Your task to perform on an android device: Open Google Chrome and click the shortcut for Amazon.com Image 0: 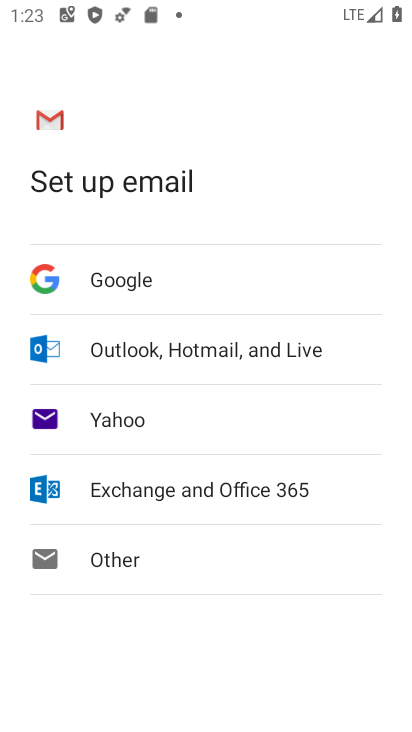
Step 0: press home button
Your task to perform on an android device: Open Google Chrome and click the shortcut for Amazon.com Image 1: 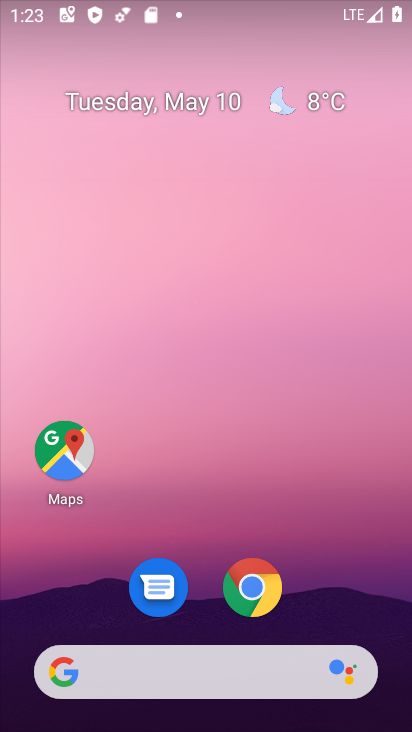
Step 1: click (248, 572)
Your task to perform on an android device: Open Google Chrome and click the shortcut for Amazon.com Image 2: 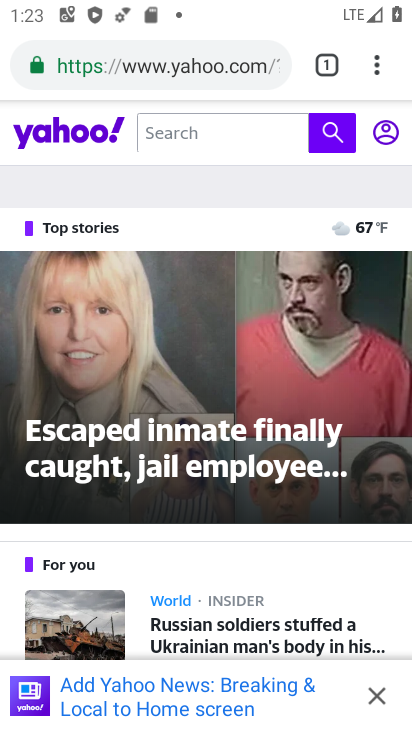
Step 2: click (327, 63)
Your task to perform on an android device: Open Google Chrome and click the shortcut for Amazon.com Image 3: 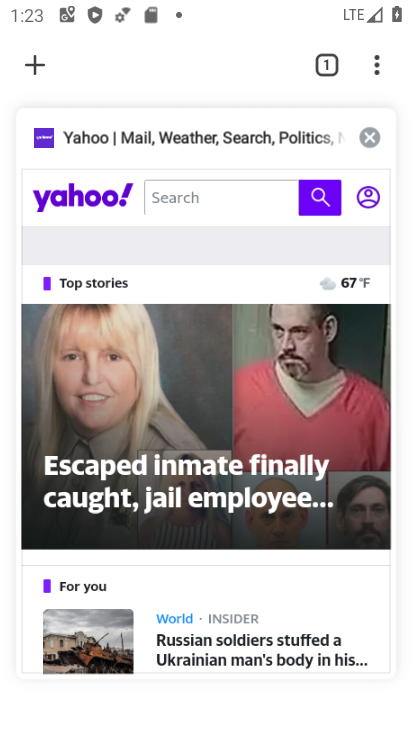
Step 3: click (371, 146)
Your task to perform on an android device: Open Google Chrome and click the shortcut for Amazon.com Image 4: 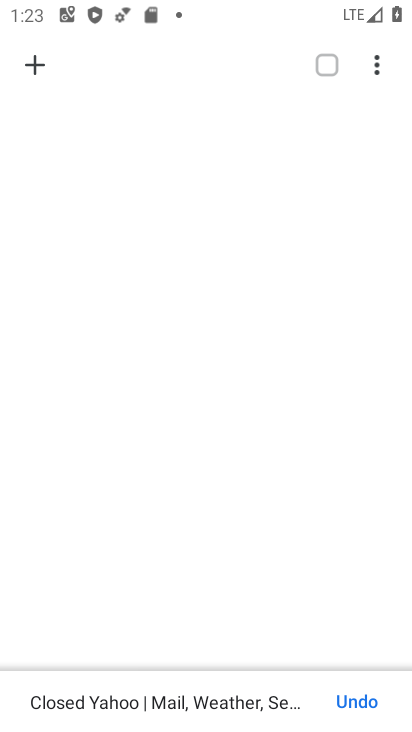
Step 4: click (33, 70)
Your task to perform on an android device: Open Google Chrome and click the shortcut for Amazon.com Image 5: 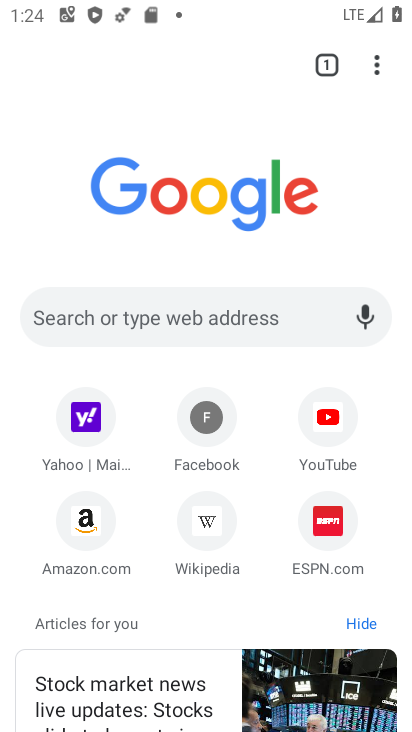
Step 5: click (77, 527)
Your task to perform on an android device: Open Google Chrome and click the shortcut for Amazon.com Image 6: 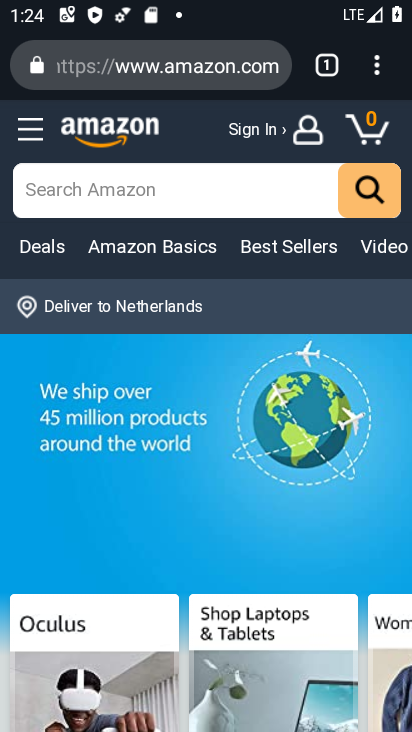
Step 6: task complete